Your task to perform on an android device: What is the news today? Image 0: 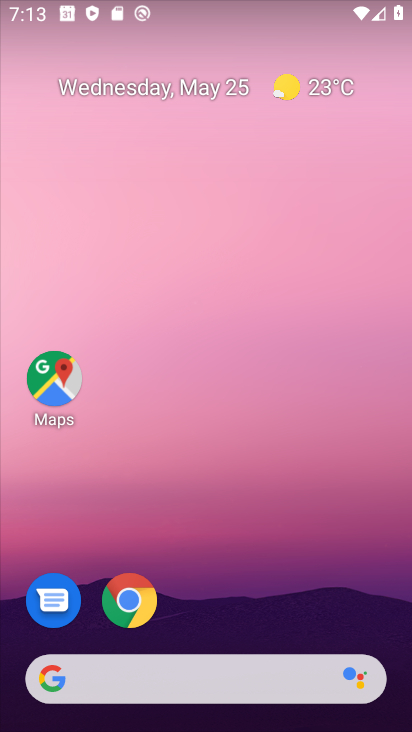
Step 0: drag from (277, 602) to (264, 185)
Your task to perform on an android device: What is the news today? Image 1: 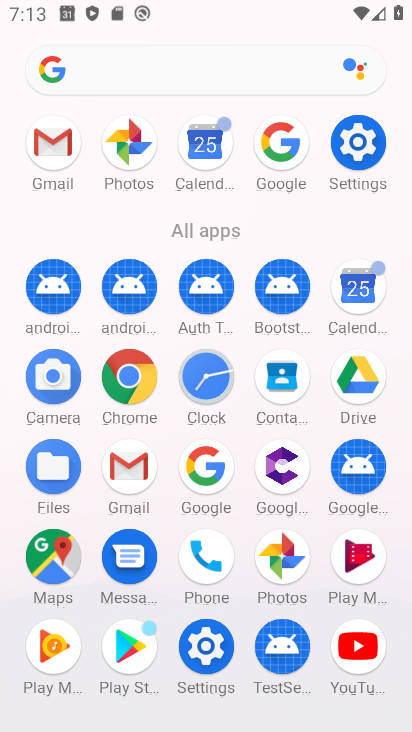
Step 1: click (201, 466)
Your task to perform on an android device: What is the news today? Image 2: 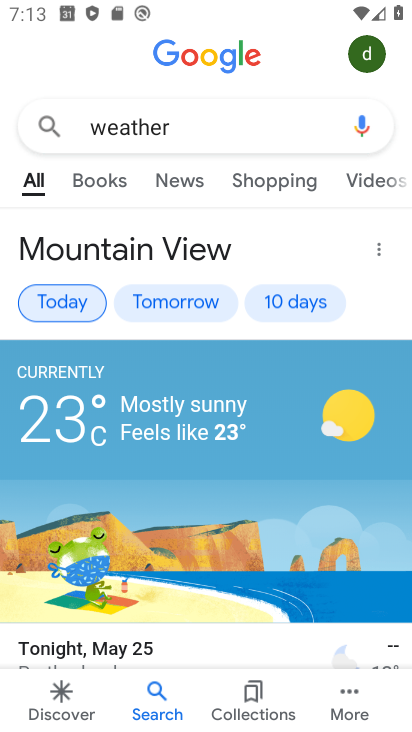
Step 2: click (207, 130)
Your task to perform on an android device: What is the news today? Image 3: 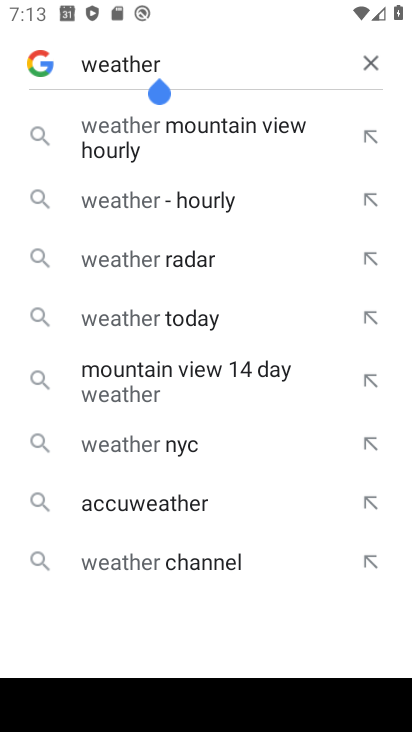
Step 3: click (374, 63)
Your task to perform on an android device: What is the news today? Image 4: 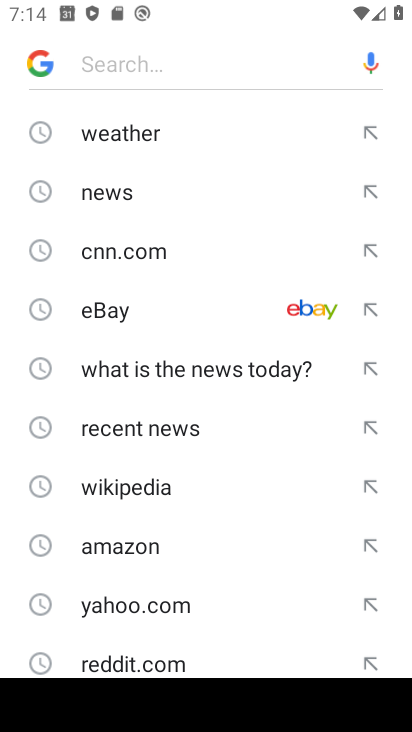
Step 4: type "news today"
Your task to perform on an android device: What is the news today? Image 5: 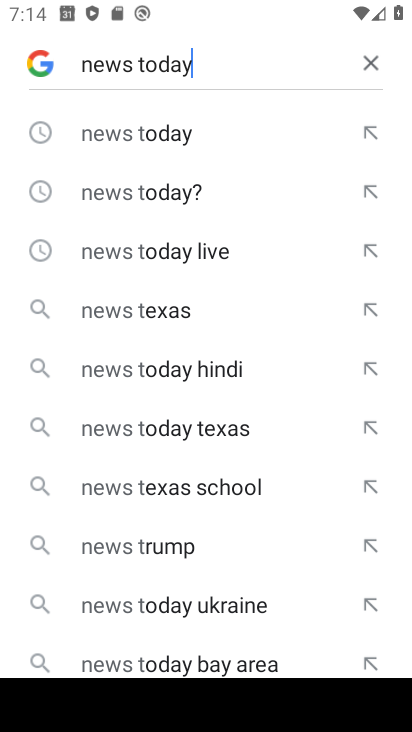
Step 5: type ""
Your task to perform on an android device: What is the news today? Image 6: 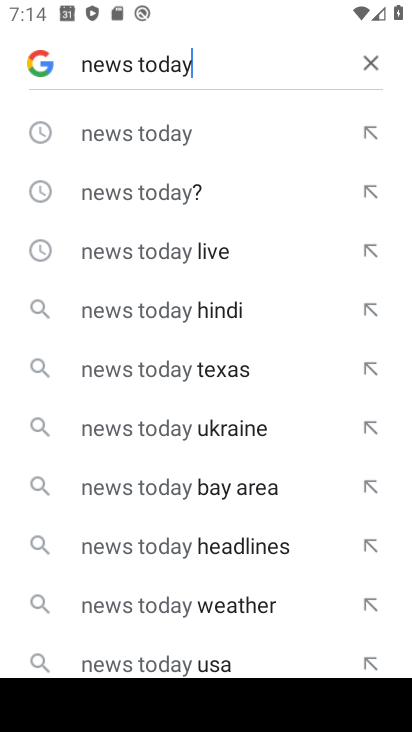
Step 6: click (149, 135)
Your task to perform on an android device: What is the news today? Image 7: 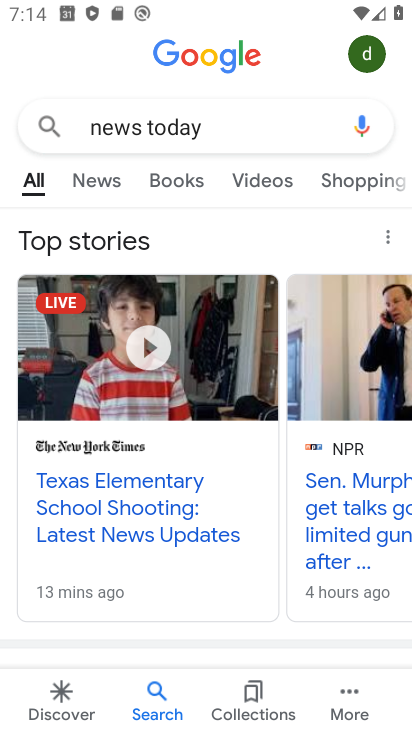
Step 7: task complete